Your task to perform on an android device: Open calendar and show me the second week of next month Image 0: 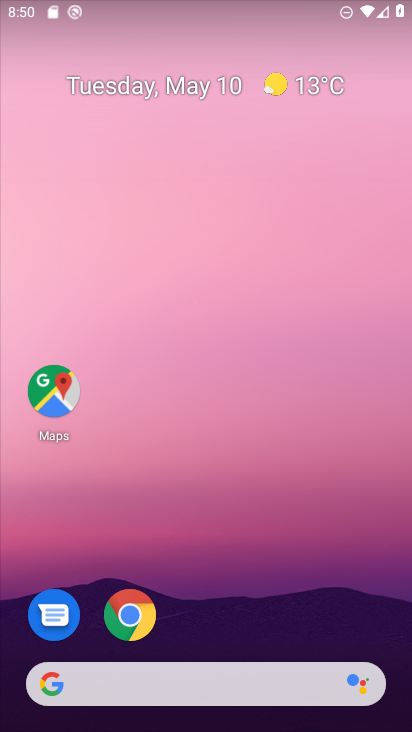
Step 0: drag from (216, 518) to (169, 3)
Your task to perform on an android device: Open calendar and show me the second week of next month Image 1: 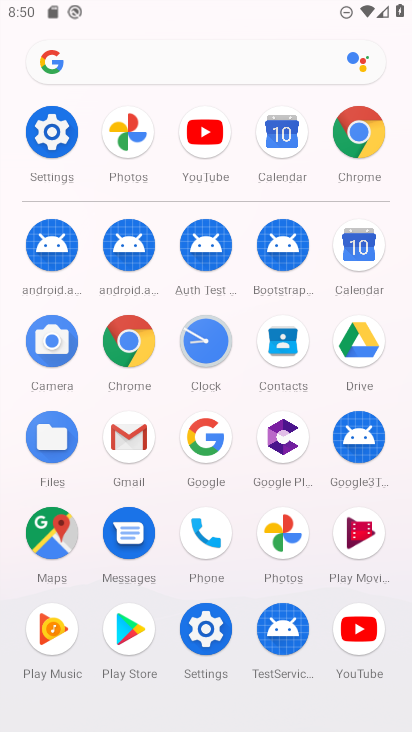
Step 1: click (361, 251)
Your task to perform on an android device: Open calendar and show me the second week of next month Image 2: 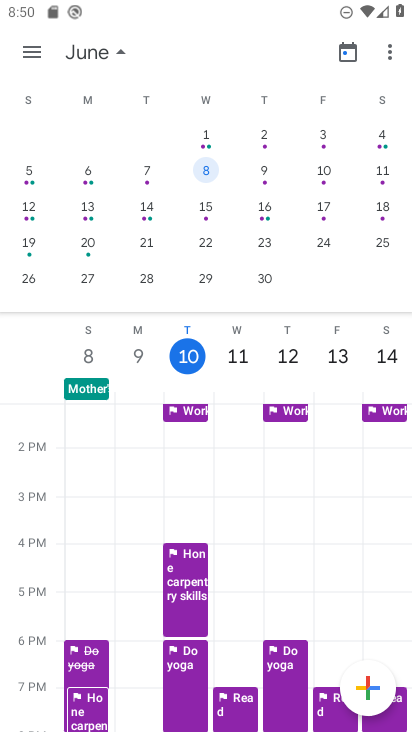
Step 2: task complete